Your task to perform on an android device: Open wifi settings Image 0: 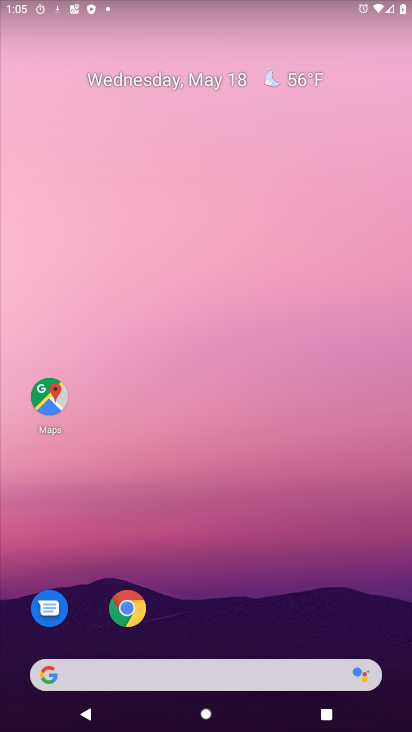
Step 0: drag from (263, 690) to (235, 225)
Your task to perform on an android device: Open wifi settings Image 1: 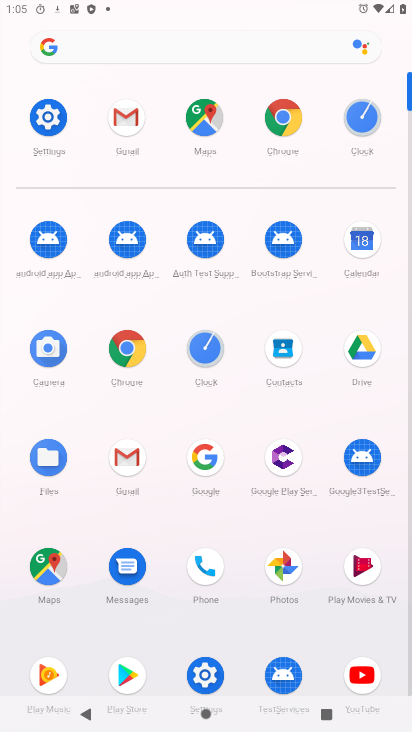
Step 1: click (64, 122)
Your task to perform on an android device: Open wifi settings Image 2: 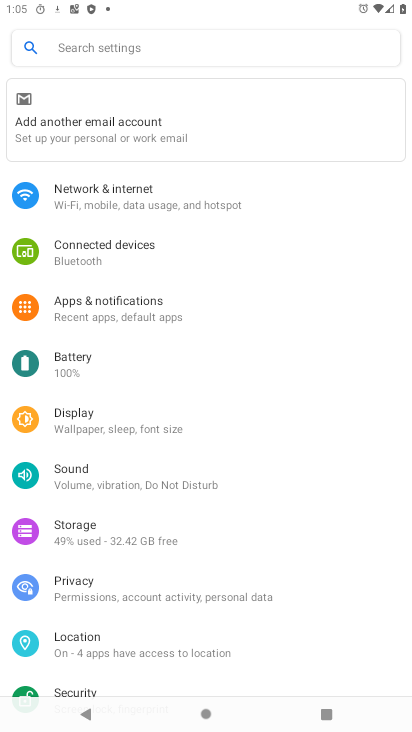
Step 2: click (119, 197)
Your task to perform on an android device: Open wifi settings Image 3: 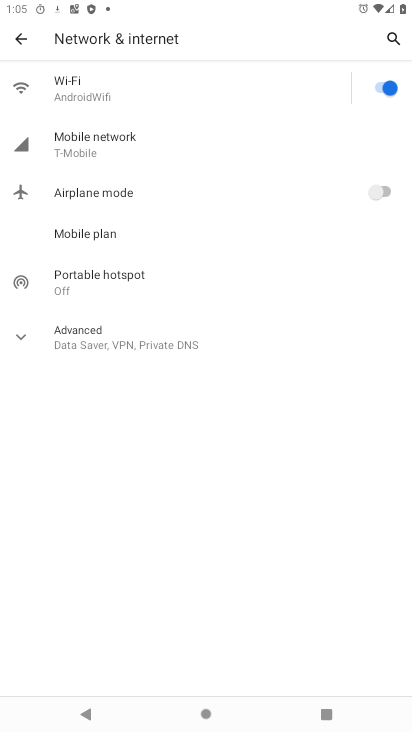
Step 3: click (95, 98)
Your task to perform on an android device: Open wifi settings Image 4: 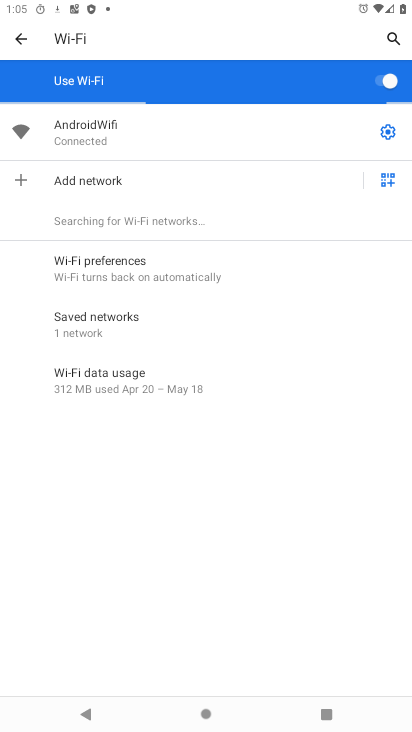
Step 4: task complete